Your task to perform on an android device: toggle data saver in the chrome app Image 0: 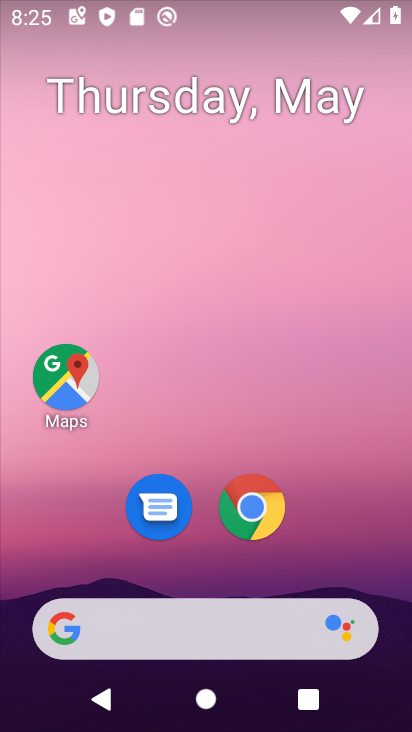
Step 0: drag from (199, 657) to (255, 319)
Your task to perform on an android device: toggle data saver in the chrome app Image 1: 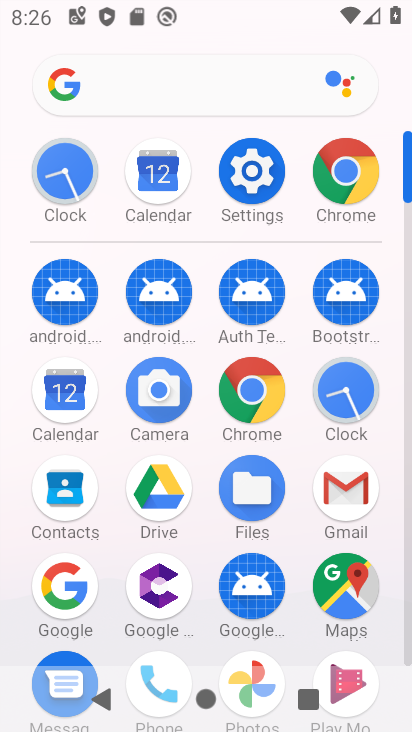
Step 1: click (333, 181)
Your task to perform on an android device: toggle data saver in the chrome app Image 2: 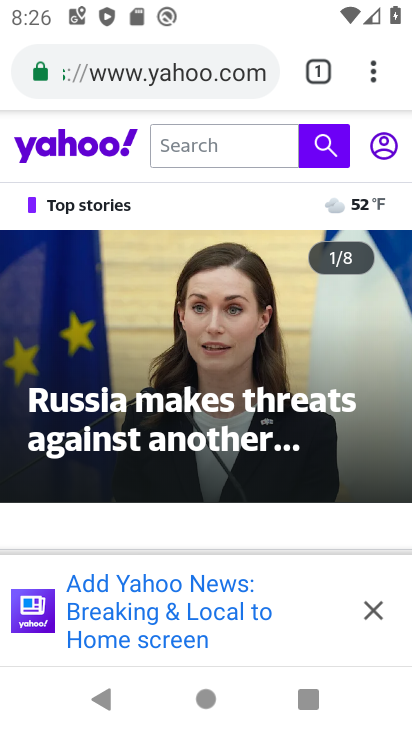
Step 2: click (374, 93)
Your task to perform on an android device: toggle data saver in the chrome app Image 3: 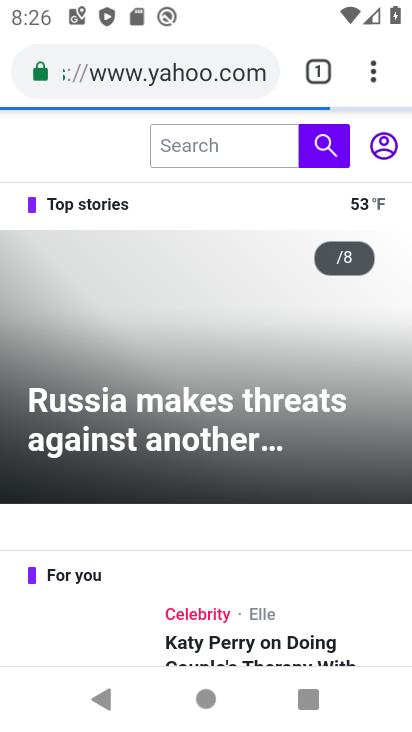
Step 3: click (365, 95)
Your task to perform on an android device: toggle data saver in the chrome app Image 4: 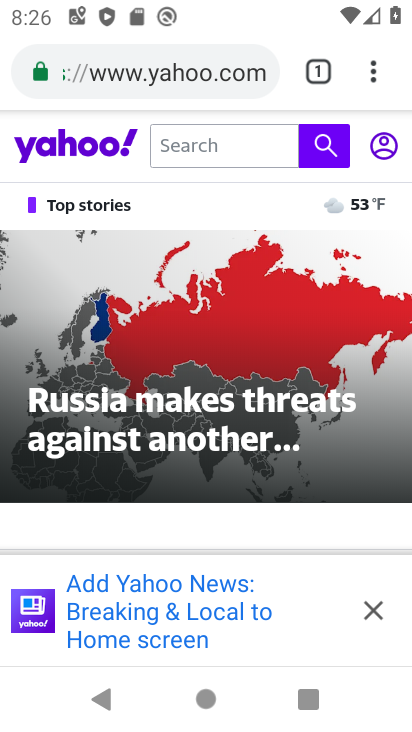
Step 4: click (363, 78)
Your task to perform on an android device: toggle data saver in the chrome app Image 5: 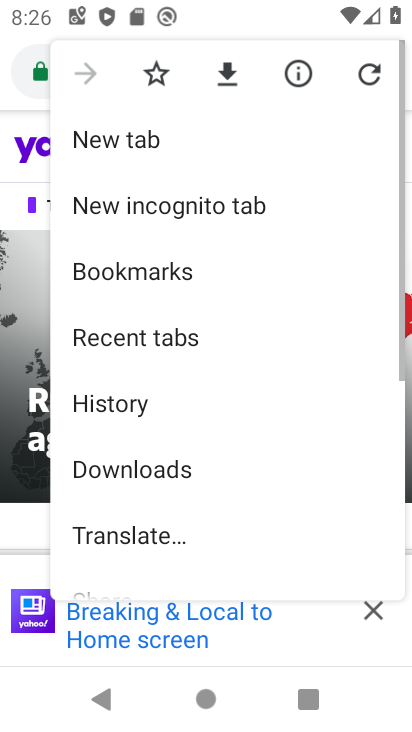
Step 5: drag from (131, 533) to (202, 301)
Your task to perform on an android device: toggle data saver in the chrome app Image 6: 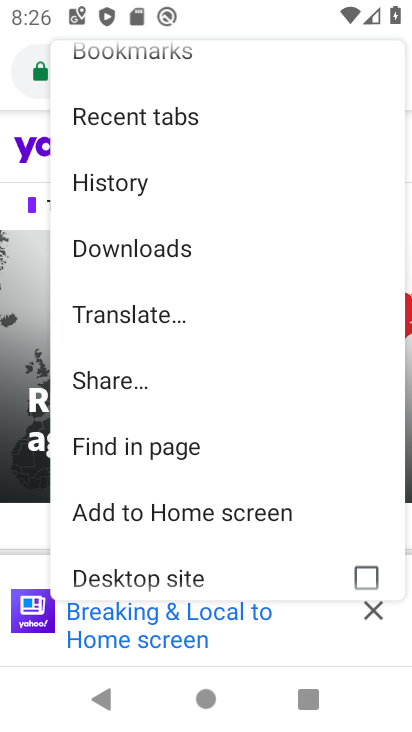
Step 6: drag from (166, 501) to (208, 324)
Your task to perform on an android device: toggle data saver in the chrome app Image 7: 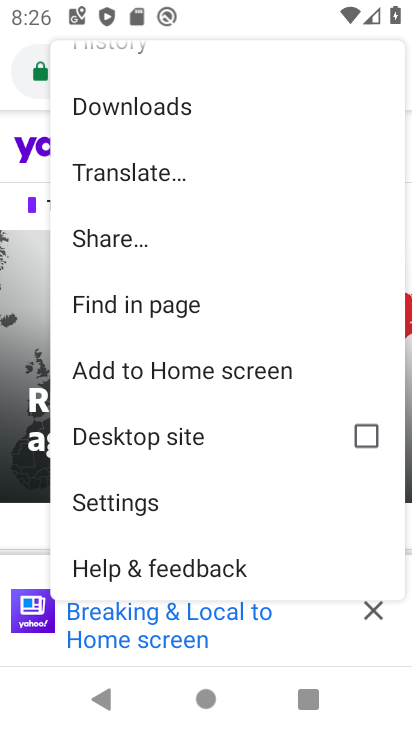
Step 7: click (163, 498)
Your task to perform on an android device: toggle data saver in the chrome app Image 8: 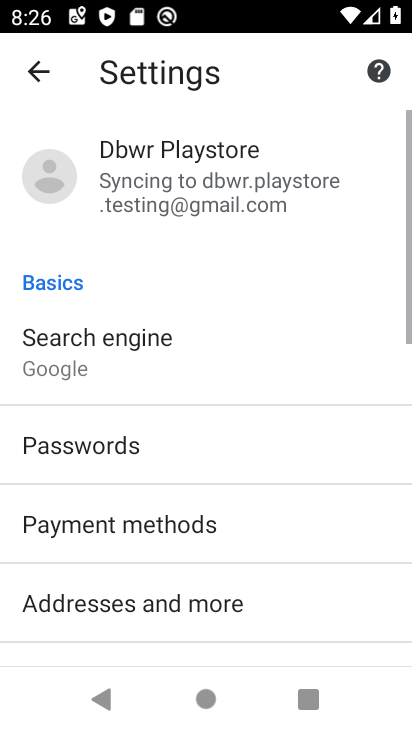
Step 8: drag from (102, 584) to (162, 353)
Your task to perform on an android device: toggle data saver in the chrome app Image 9: 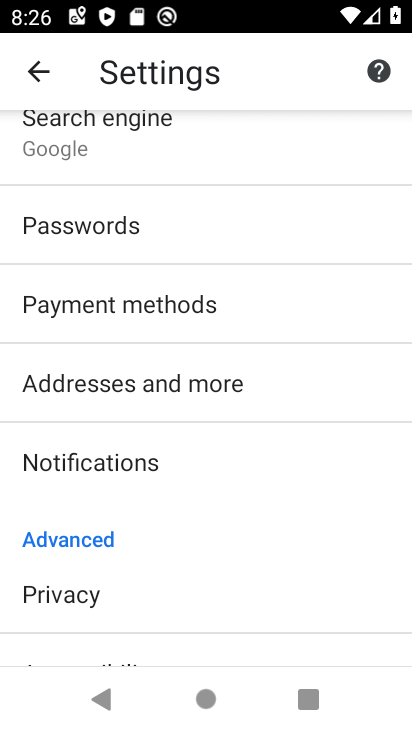
Step 9: drag from (106, 573) to (170, 319)
Your task to perform on an android device: toggle data saver in the chrome app Image 10: 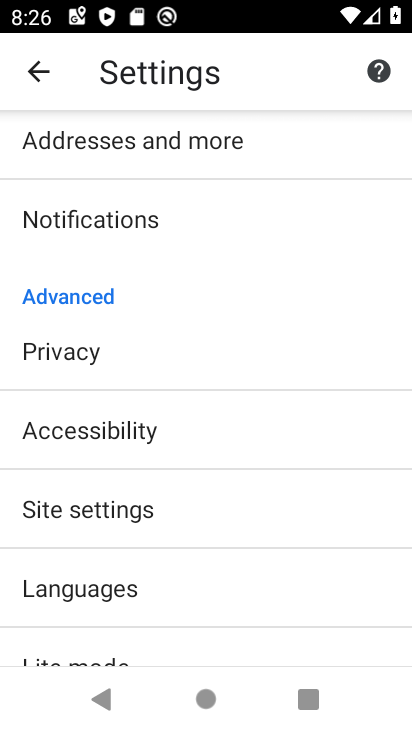
Step 10: drag from (89, 618) to (106, 582)
Your task to perform on an android device: toggle data saver in the chrome app Image 11: 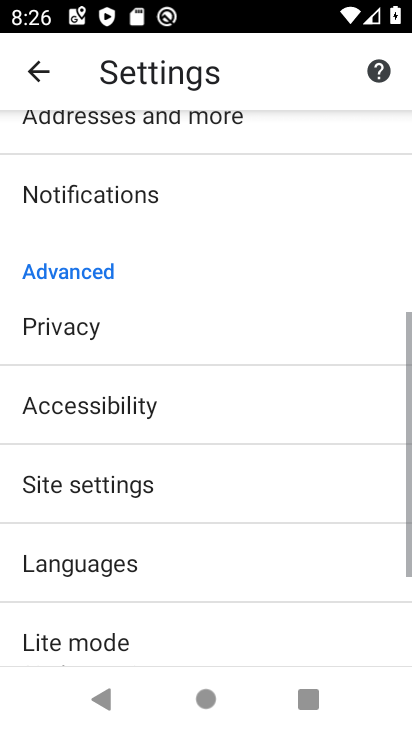
Step 11: click (74, 632)
Your task to perform on an android device: toggle data saver in the chrome app Image 12: 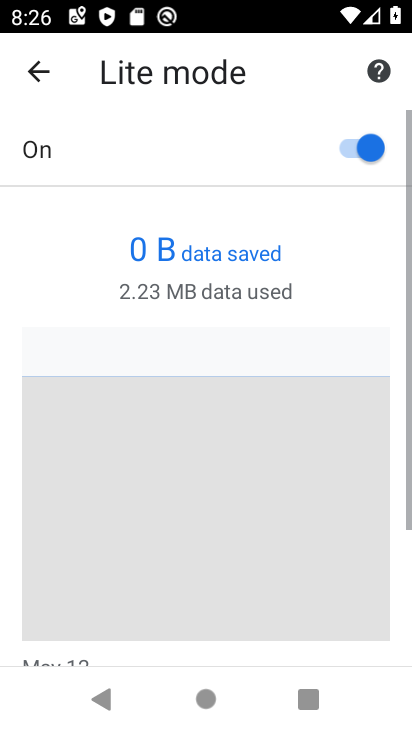
Step 12: task complete